Your task to perform on an android device: Search for "jbl flip 4" on amazon.com, select the first entry, and add it to the cart. Image 0: 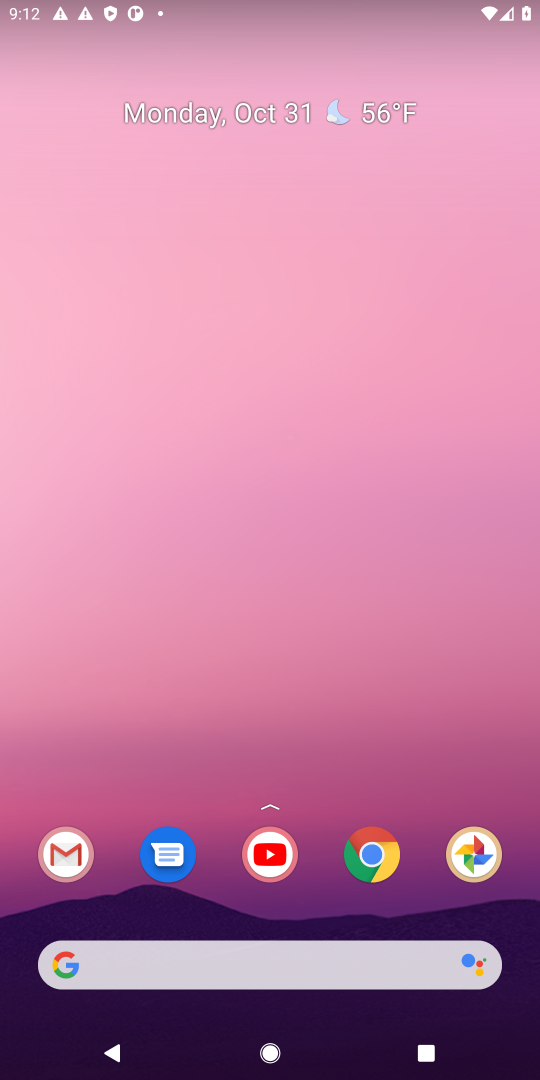
Step 0: click (320, 954)
Your task to perform on an android device: Search for "jbl flip 4" on amazon.com, select the first entry, and add it to the cart. Image 1: 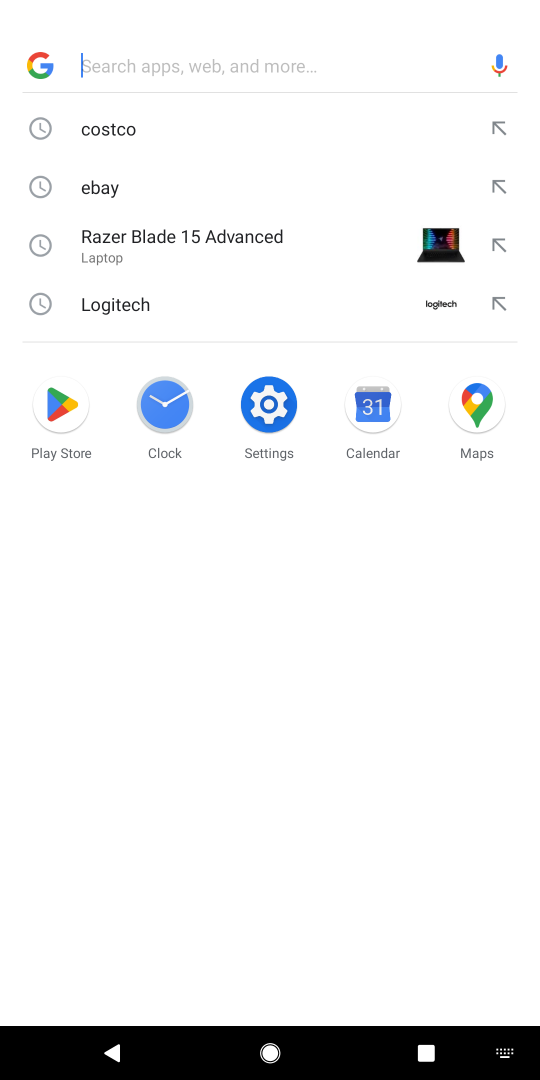
Step 1: type "jbl flip 4"
Your task to perform on an android device: Search for "jbl flip 4" on amazon.com, select the first entry, and add it to the cart. Image 2: 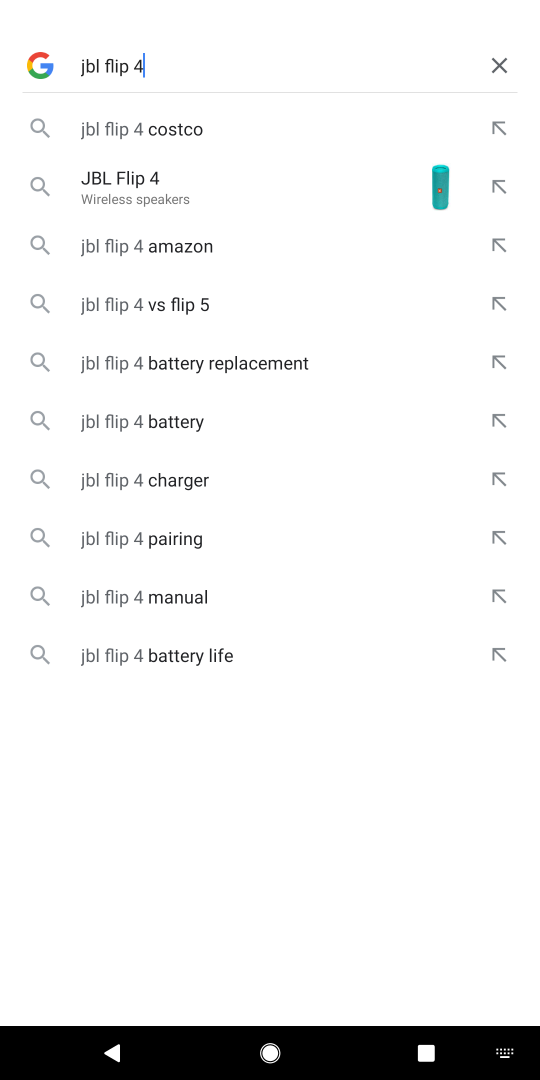
Step 2: click (157, 134)
Your task to perform on an android device: Search for "jbl flip 4" on amazon.com, select the first entry, and add it to the cart. Image 3: 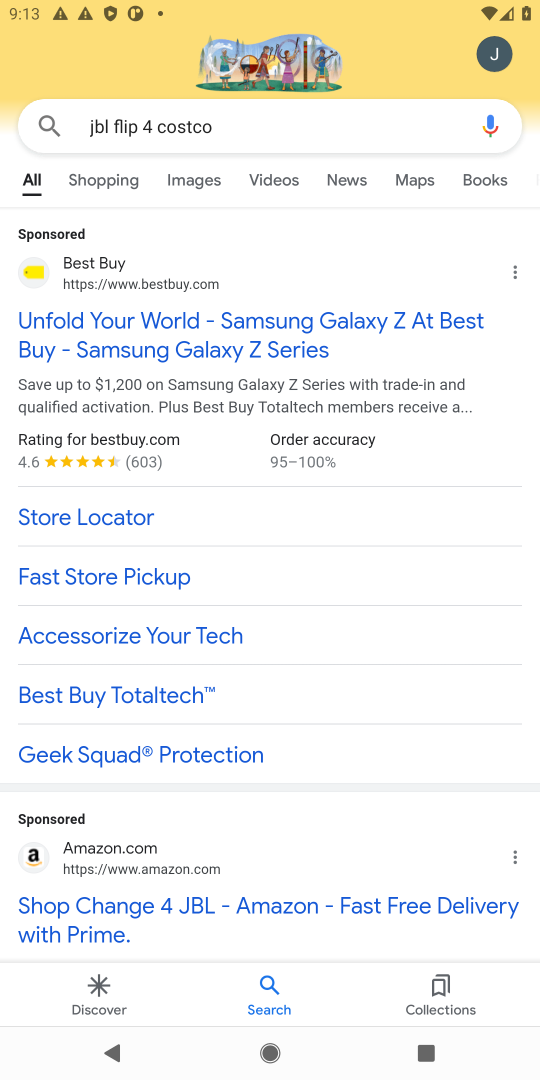
Step 3: click (130, 344)
Your task to perform on an android device: Search for "jbl flip 4" on amazon.com, select the first entry, and add it to the cart. Image 4: 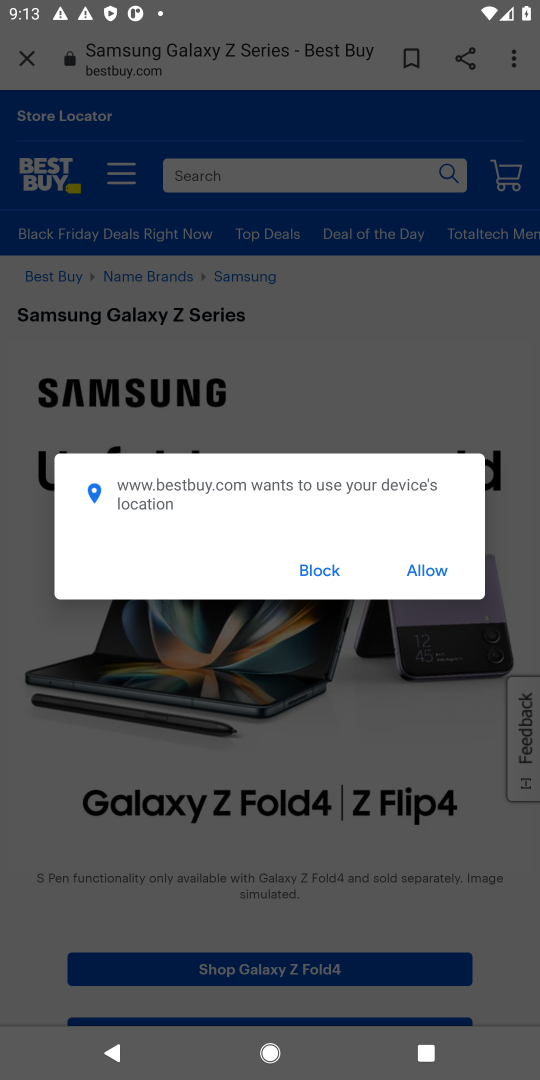
Step 4: click (313, 560)
Your task to perform on an android device: Search for "jbl flip 4" on amazon.com, select the first entry, and add it to the cart. Image 5: 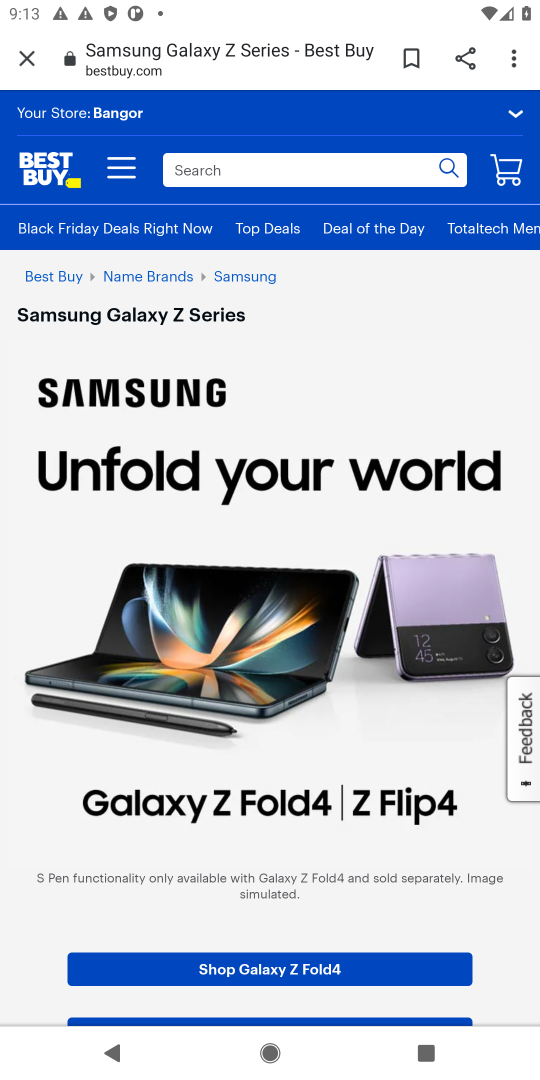
Step 5: click (337, 1021)
Your task to perform on an android device: Search for "jbl flip 4" on amazon.com, select the first entry, and add it to the cart. Image 6: 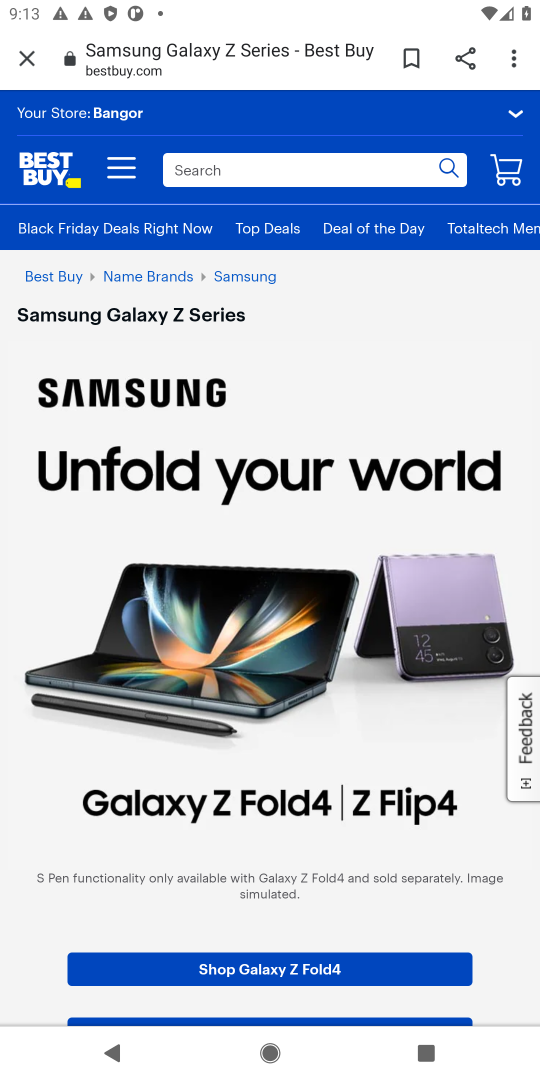
Step 6: task complete